Your task to perform on an android device: turn off picture-in-picture Image 0: 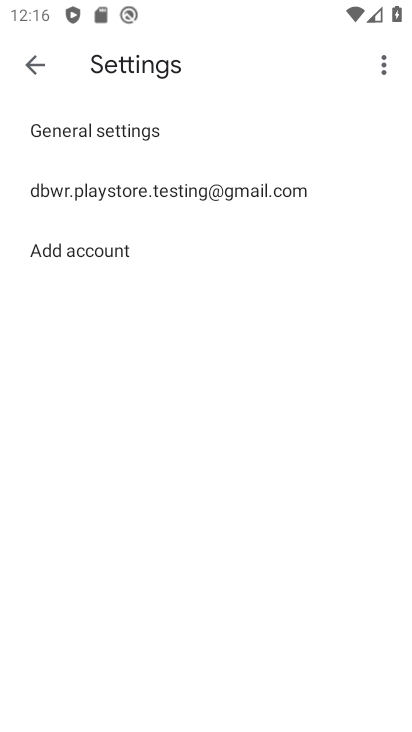
Step 0: press home button
Your task to perform on an android device: turn off picture-in-picture Image 1: 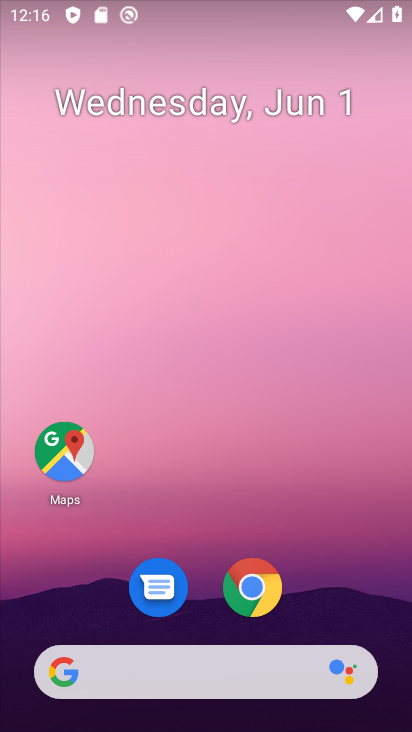
Step 1: drag from (315, 507) to (191, 43)
Your task to perform on an android device: turn off picture-in-picture Image 2: 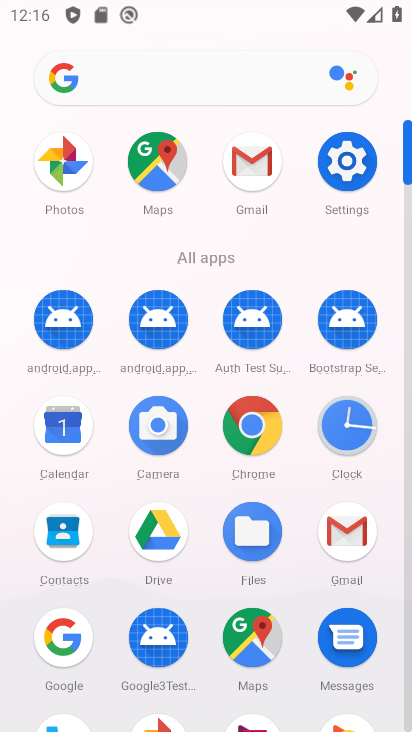
Step 2: click (346, 160)
Your task to perform on an android device: turn off picture-in-picture Image 3: 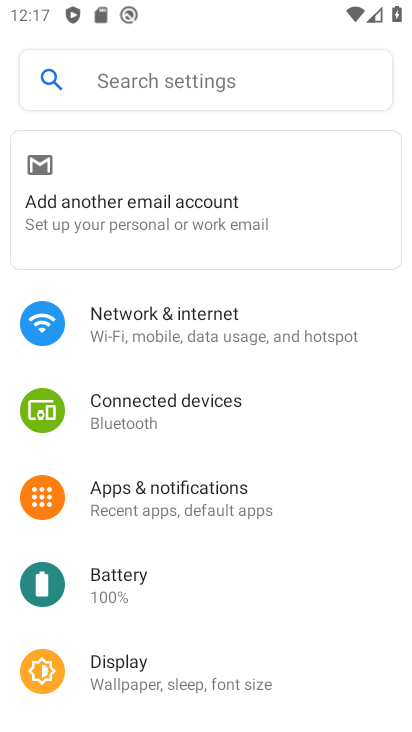
Step 3: drag from (224, 560) to (217, 267)
Your task to perform on an android device: turn off picture-in-picture Image 4: 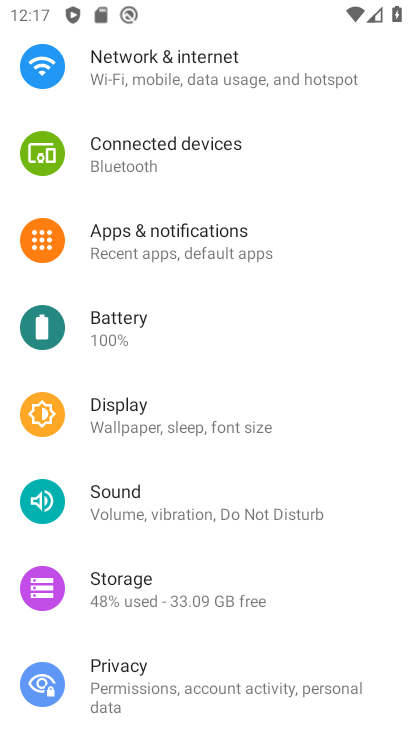
Step 4: drag from (272, 578) to (239, 195)
Your task to perform on an android device: turn off picture-in-picture Image 5: 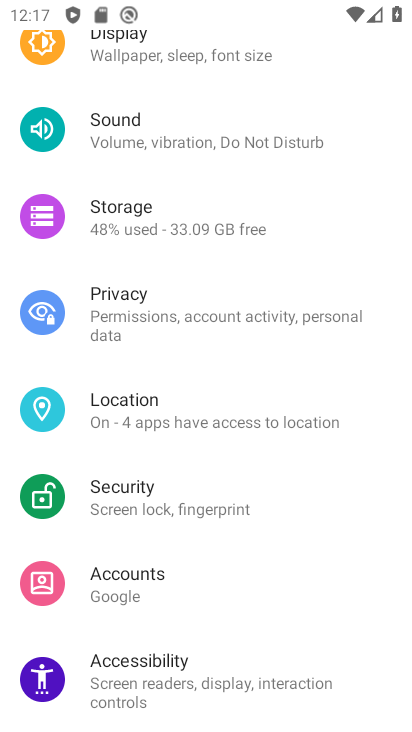
Step 5: drag from (286, 247) to (222, 718)
Your task to perform on an android device: turn off picture-in-picture Image 6: 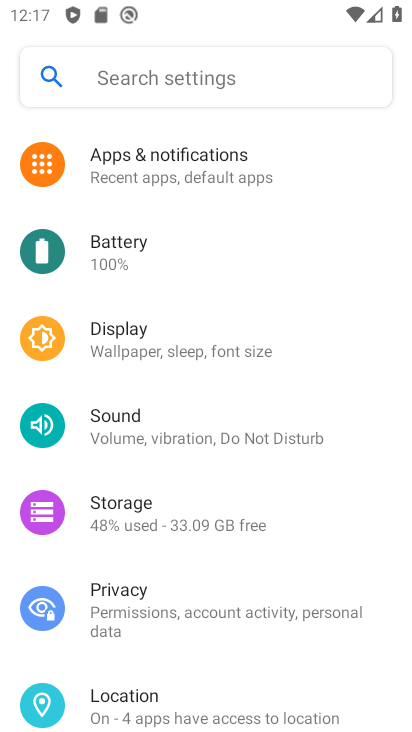
Step 6: click (158, 157)
Your task to perform on an android device: turn off picture-in-picture Image 7: 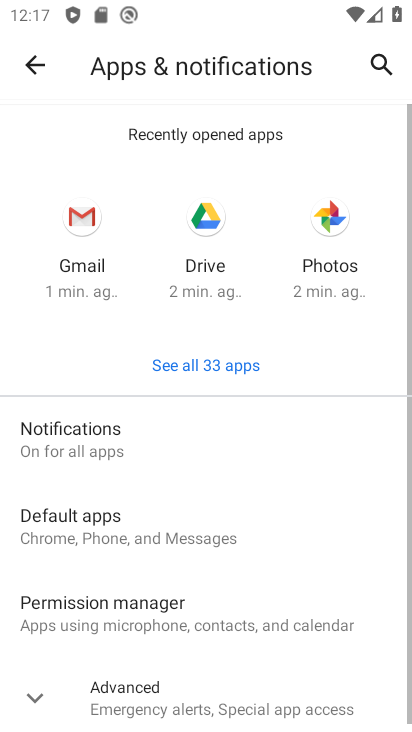
Step 7: drag from (230, 484) to (198, 254)
Your task to perform on an android device: turn off picture-in-picture Image 8: 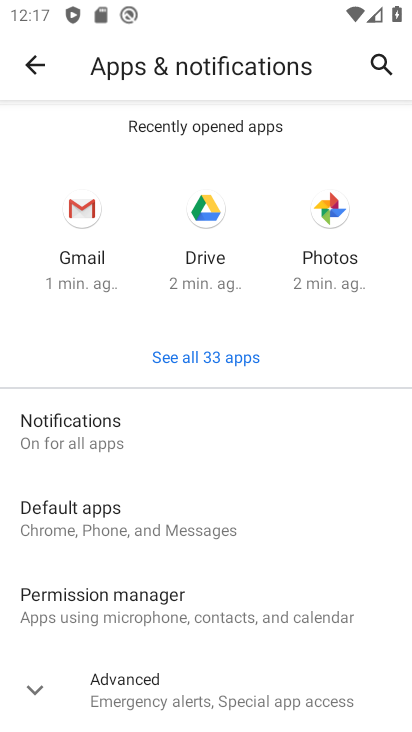
Step 8: click (31, 690)
Your task to perform on an android device: turn off picture-in-picture Image 9: 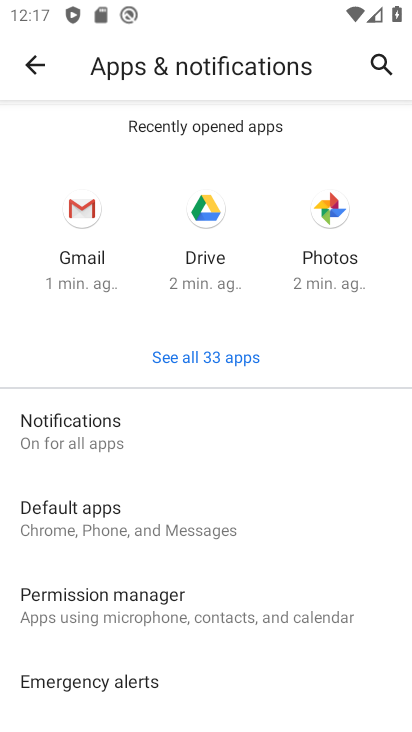
Step 9: drag from (182, 661) to (117, 352)
Your task to perform on an android device: turn off picture-in-picture Image 10: 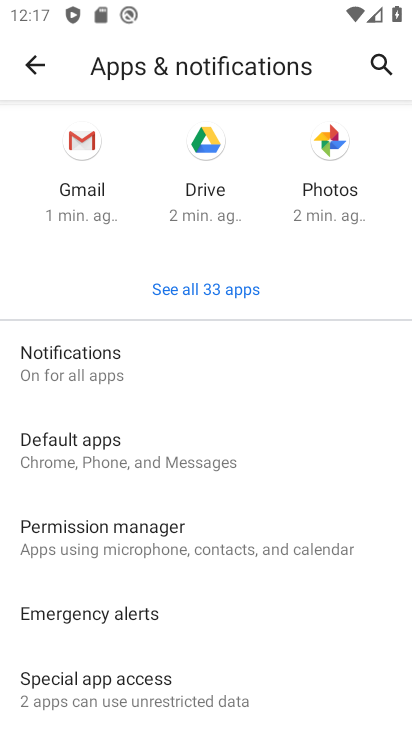
Step 10: click (99, 673)
Your task to perform on an android device: turn off picture-in-picture Image 11: 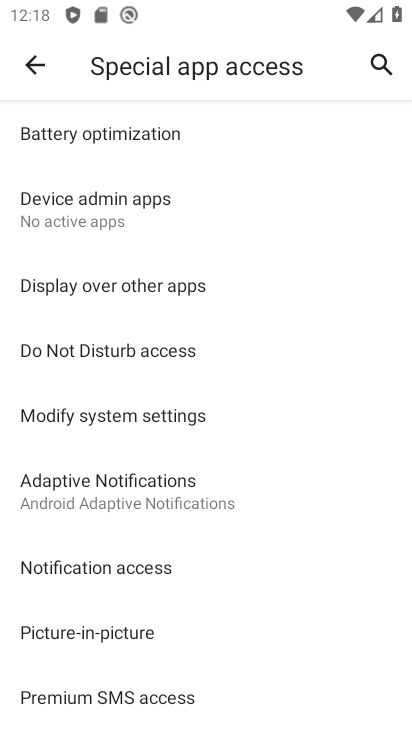
Step 11: click (114, 636)
Your task to perform on an android device: turn off picture-in-picture Image 12: 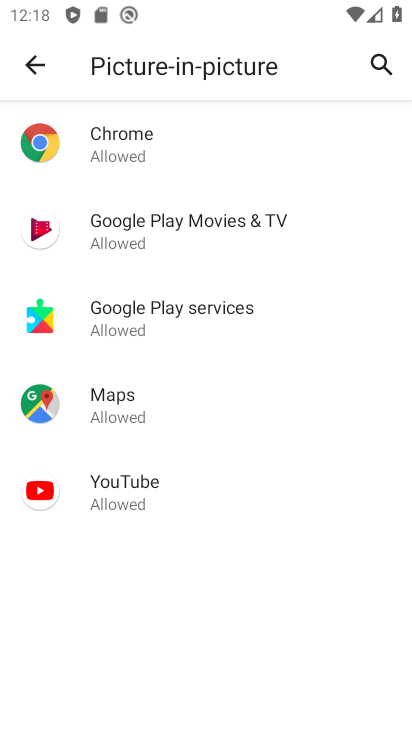
Step 12: click (96, 124)
Your task to perform on an android device: turn off picture-in-picture Image 13: 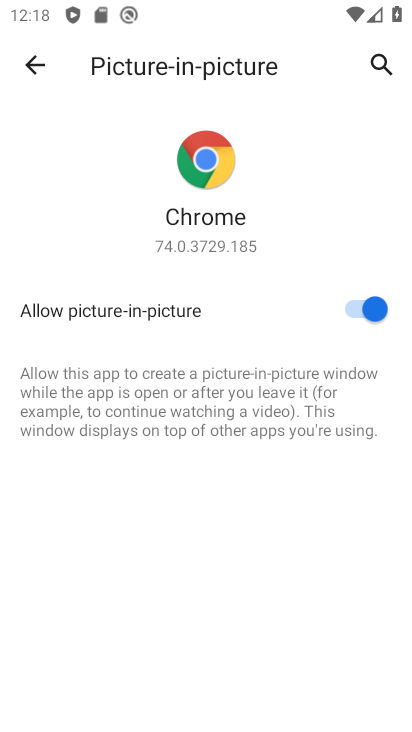
Step 13: click (378, 308)
Your task to perform on an android device: turn off picture-in-picture Image 14: 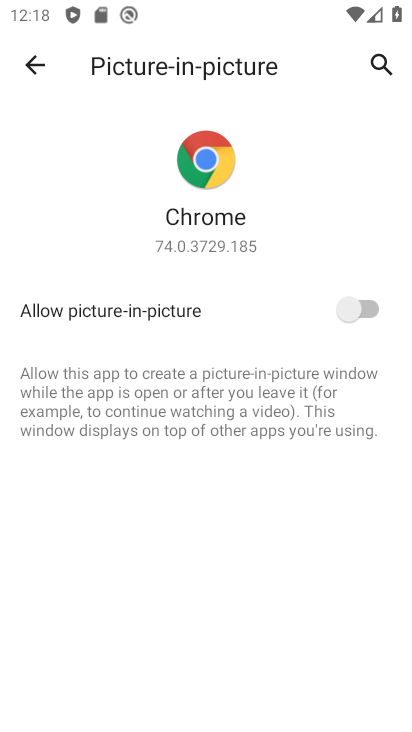
Step 14: click (36, 66)
Your task to perform on an android device: turn off picture-in-picture Image 15: 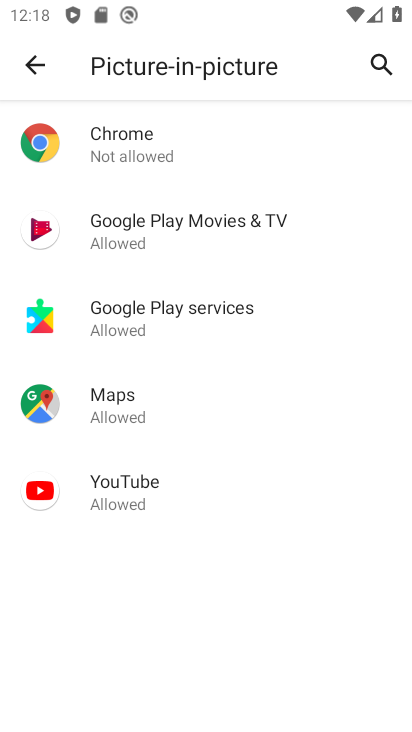
Step 15: click (124, 229)
Your task to perform on an android device: turn off picture-in-picture Image 16: 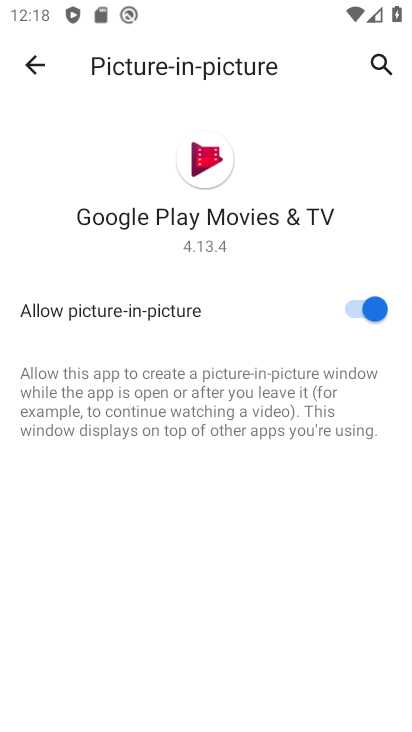
Step 16: click (382, 306)
Your task to perform on an android device: turn off picture-in-picture Image 17: 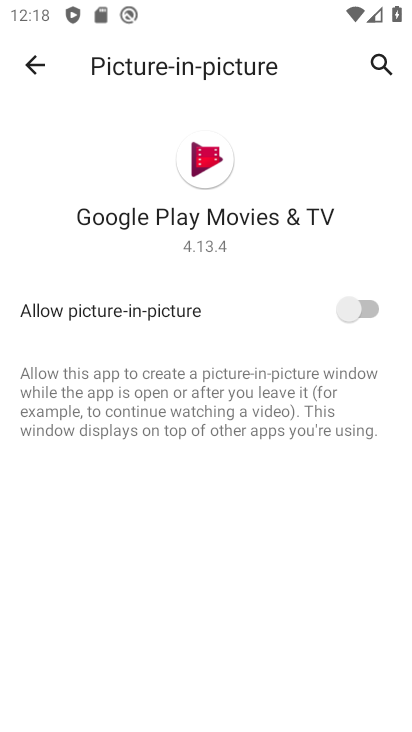
Step 17: click (40, 57)
Your task to perform on an android device: turn off picture-in-picture Image 18: 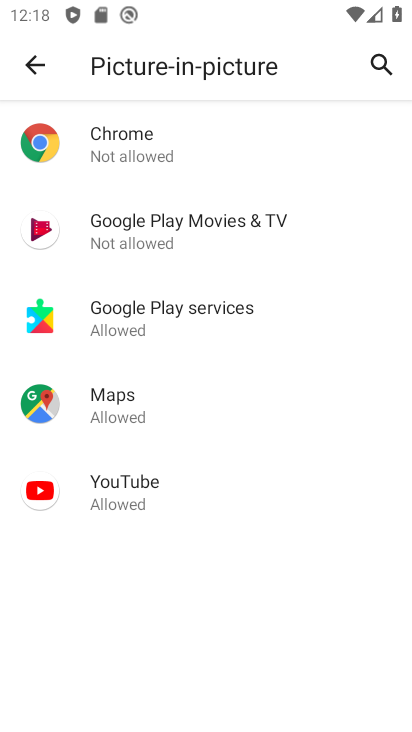
Step 18: click (133, 304)
Your task to perform on an android device: turn off picture-in-picture Image 19: 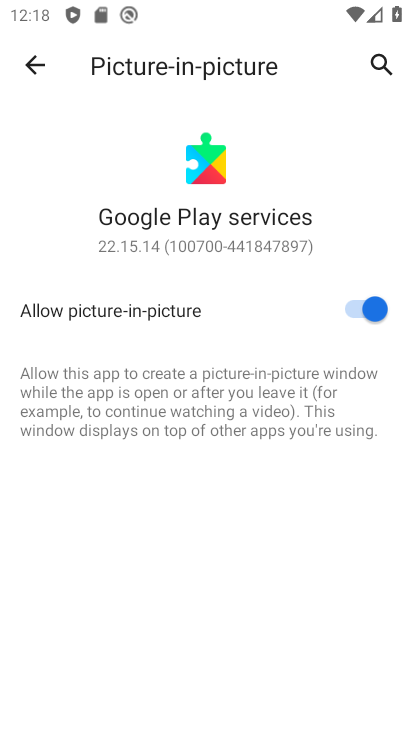
Step 19: click (369, 317)
Your task to perform on an android device: turn off picture-in-picture Image 20: 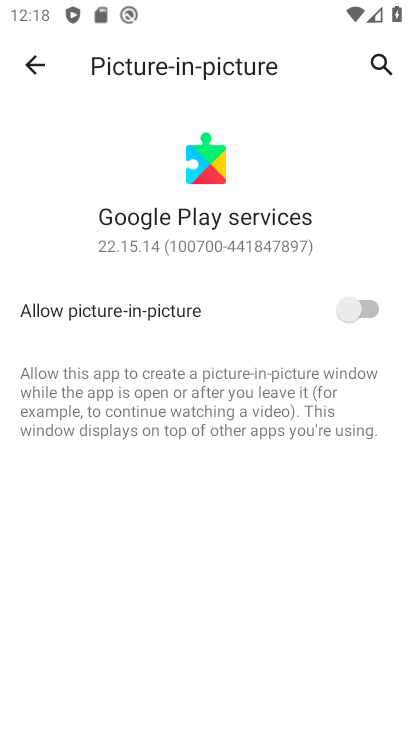
Step 20: click (29, 67)
Your task to perform on an android device: turn off picture-in-picture Image 21: 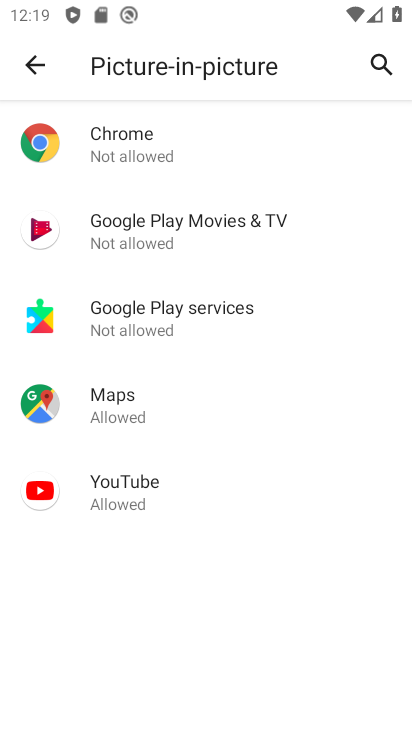
Step 21: click (115, 415)
Your task to perform on an android device: turn off picture-in-picture Image 22: 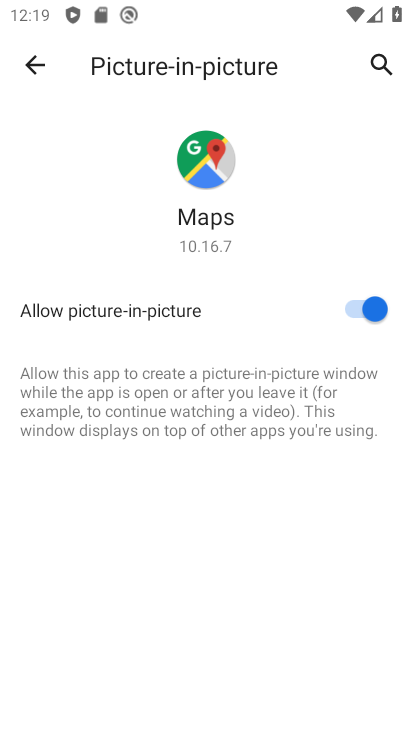
Step 22: click (368, 304)
Your task to perform on an android device: turn off picture-in-picture Image 23: 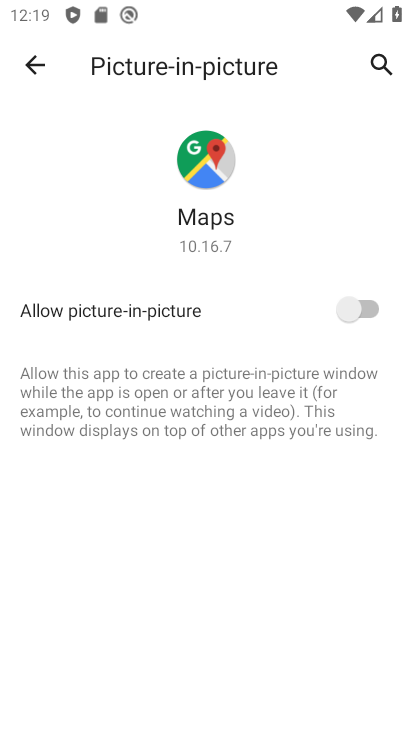
Step 23: click (38, 63)
Your task to perform on an android device: turn off picture-in-picture Image 24: 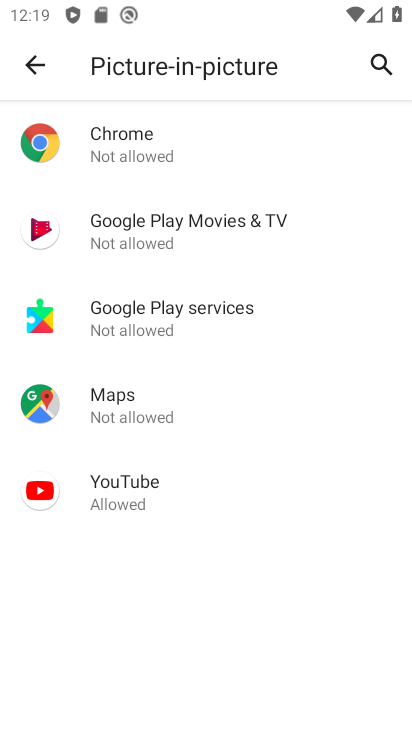
Step 24: click (108, 520)
Your task to perform on an android device: turn off picture-in-picture Image 25: 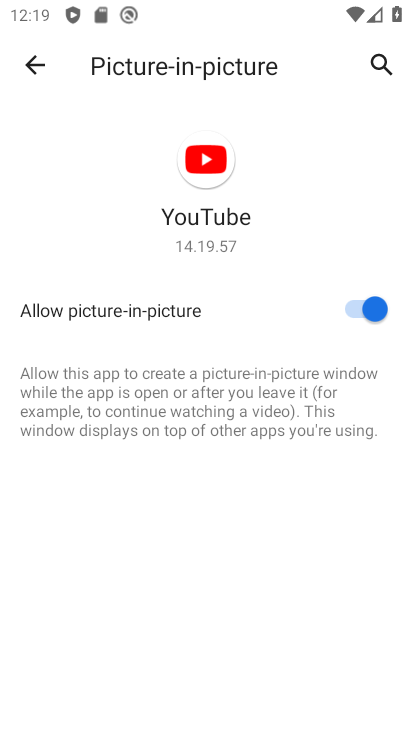
Step 25: click (376, 316)
Your task to perform on an android device: turn off picture-in-picture Image 26: 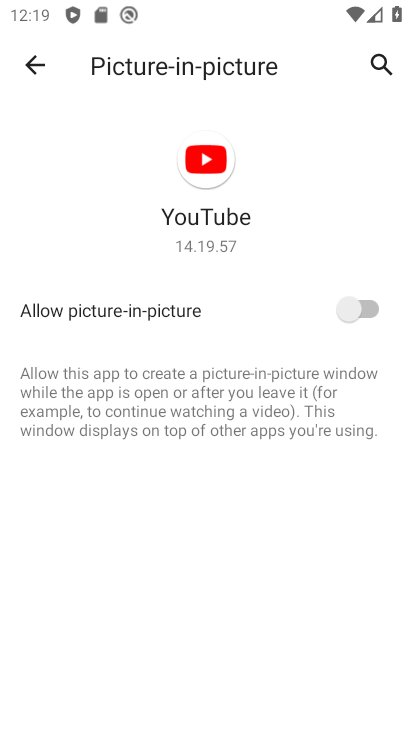
Step 26: task complete